Your task to perform on an android device: What is the news today? Image 0: 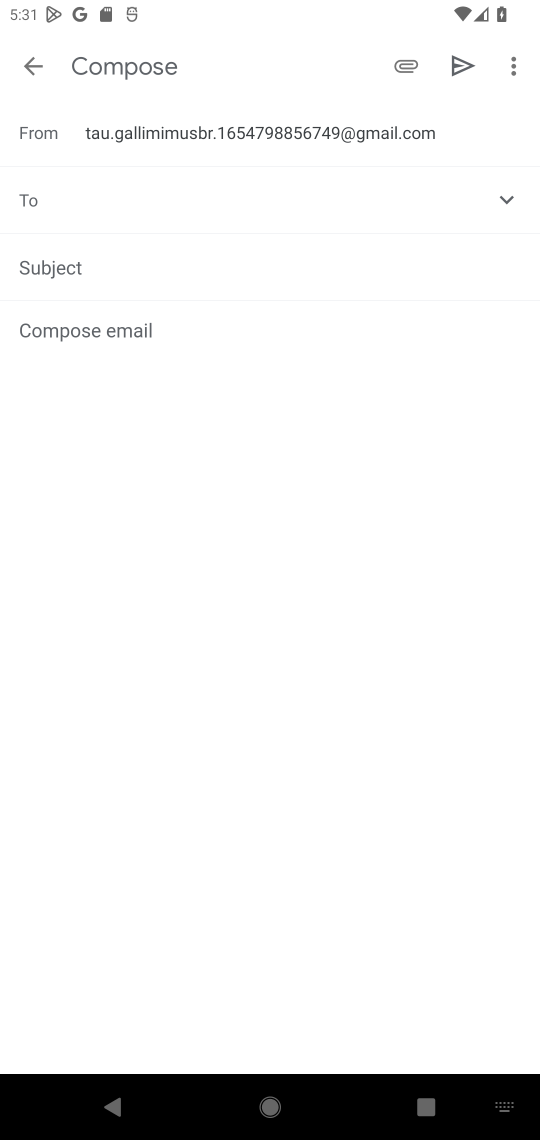
Step 0: press home button
Your task to perform on an android device: What is the news today? Image 1: 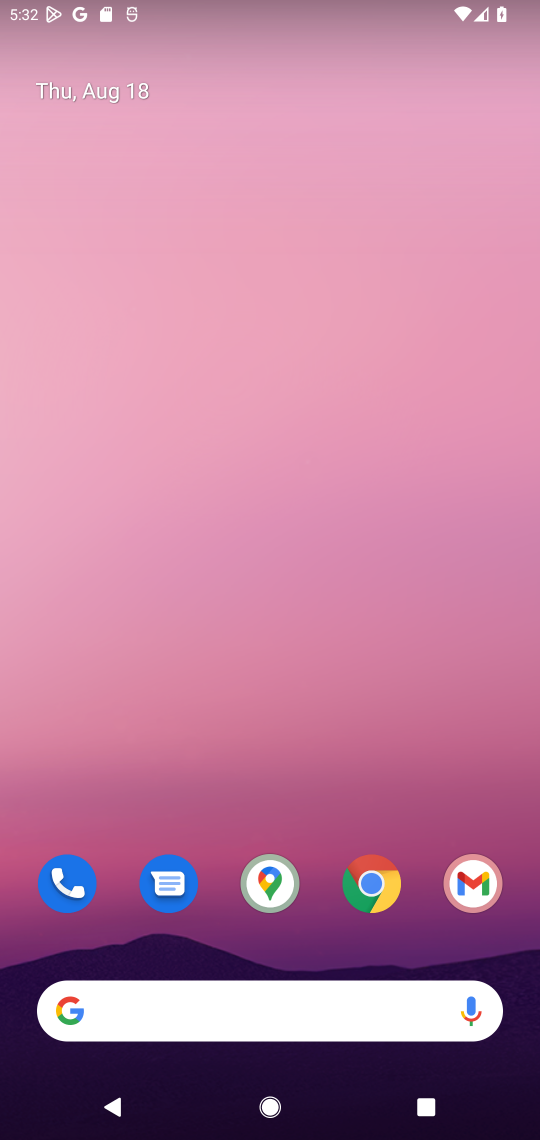
Step 1: click (380, 885)
Your task to perform on an android device: What is the news today? Image 2: 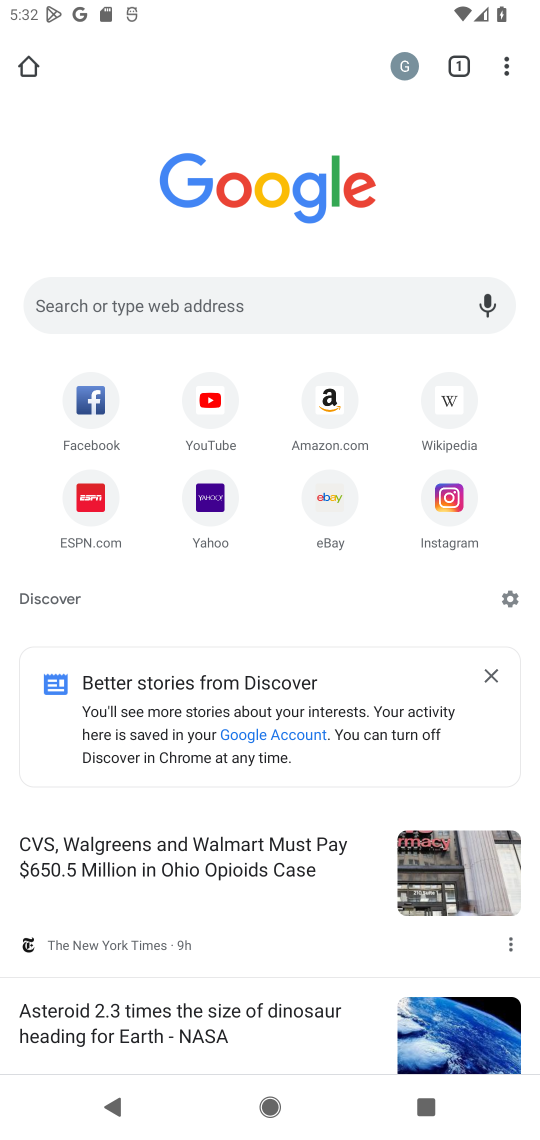
Step 2: click (315, 310)
Your task to perform on an android device: What is the news today? Image 3: 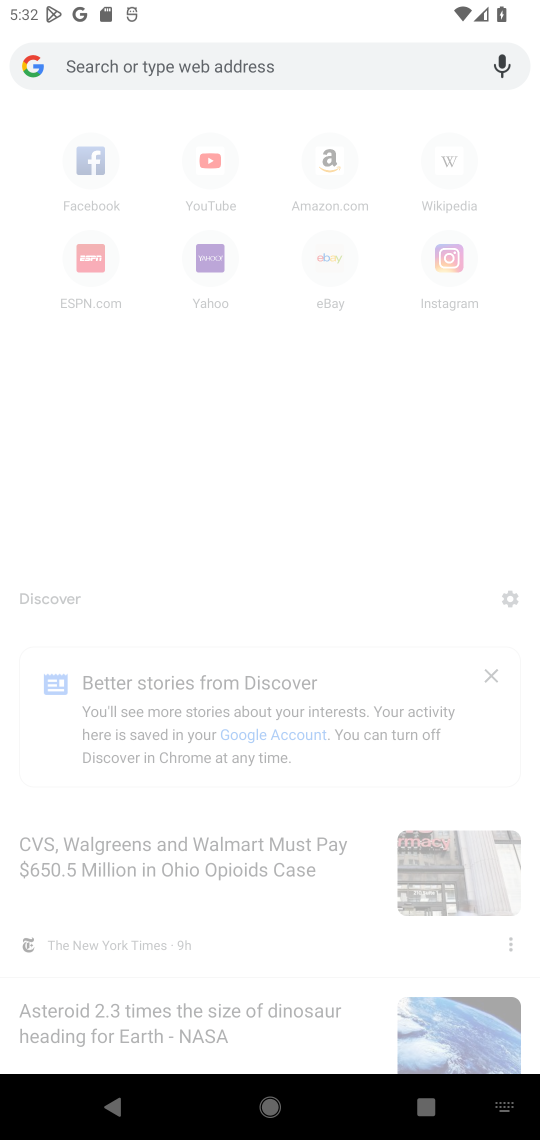
Step 3: type "What is the news today?"
Your task to perform on an android device: What is the news today? Image 4: 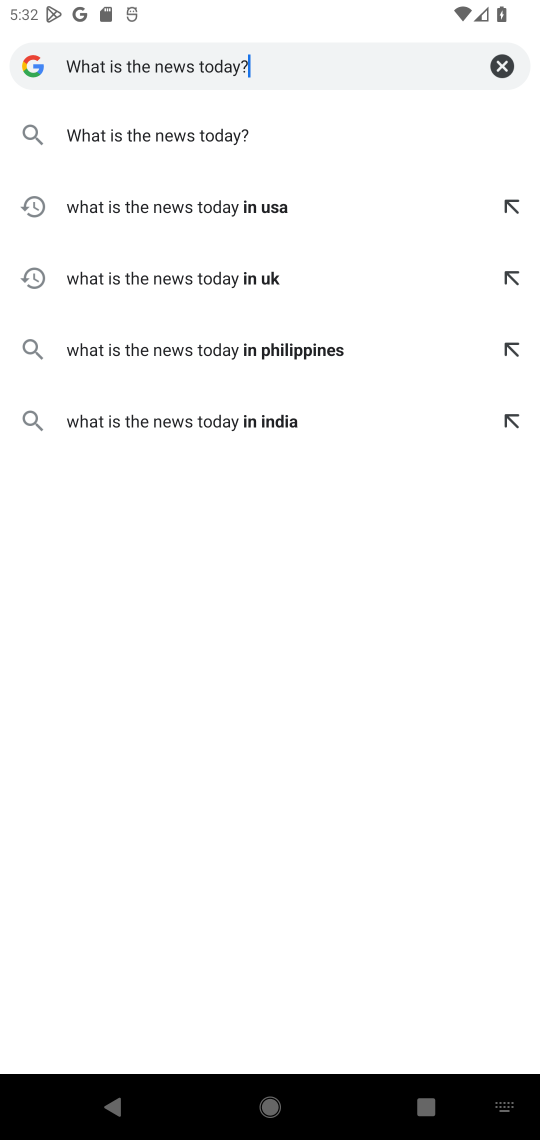
Step 4: click (212, 133)
Your task to perform on an android device: What is the news today? Image 5: 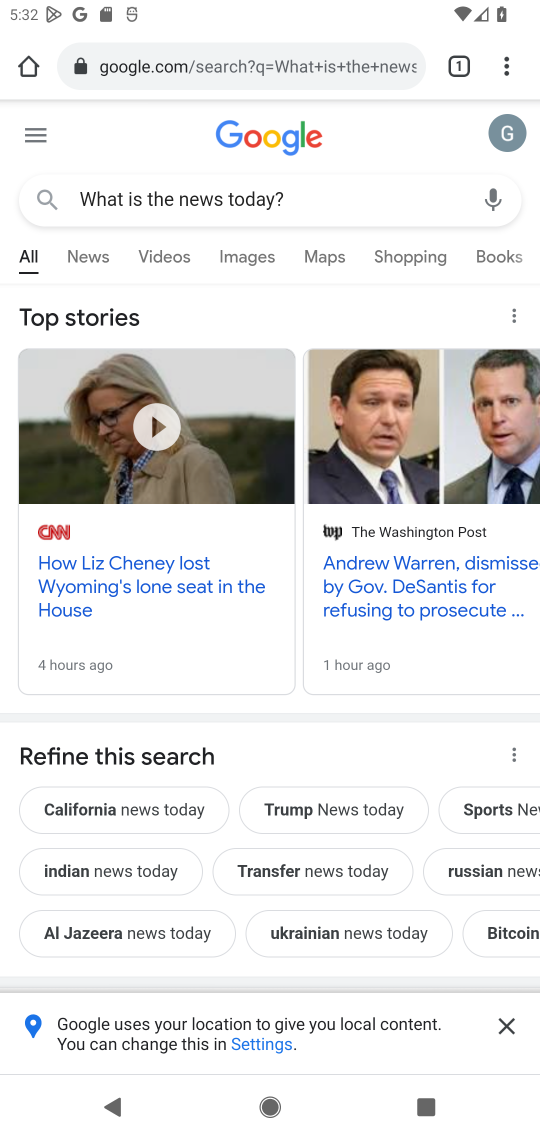
Step 5: task complete